Your task to perform on an android device: Go to Android settings Image 0: 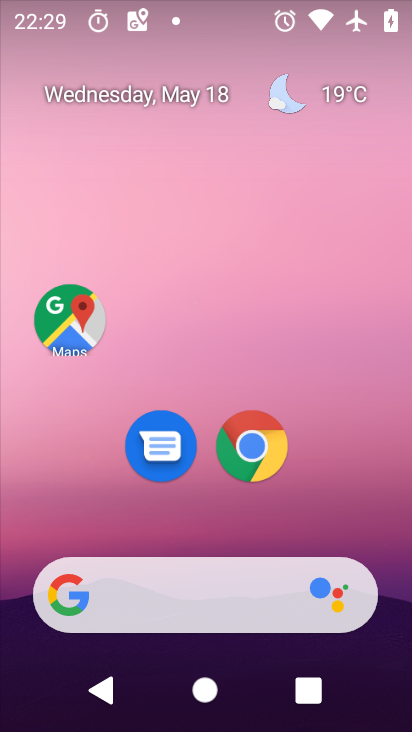
Step 0: press home button
Your task to perform on an android device: Go to Android settings Image 1: 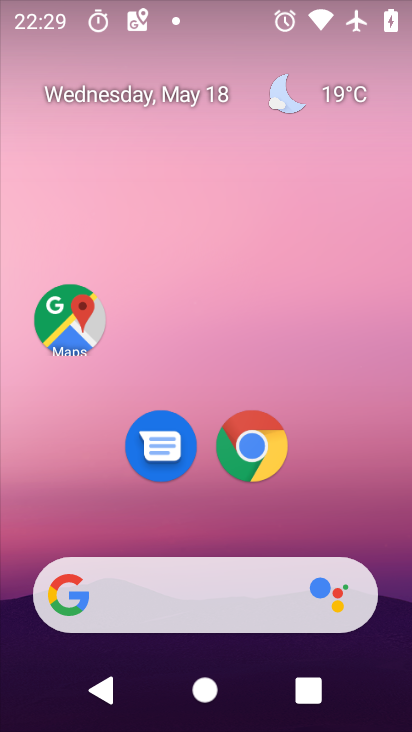
Step 1: drag from (190, 597) to (235, 93)
Your task to perform on an android device: Go to Android settings Image 2: 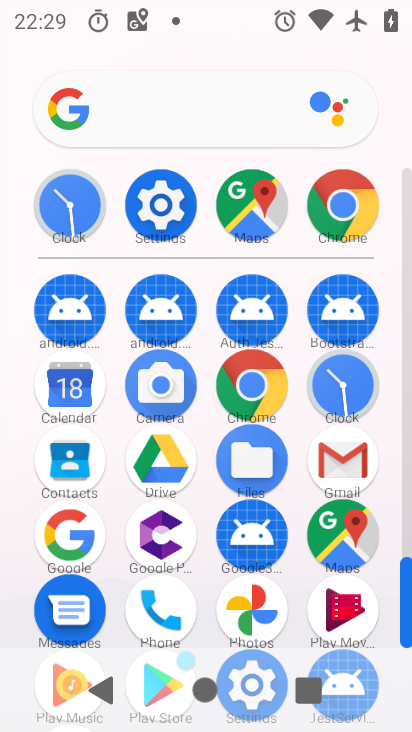
Step 2: click (162, 214)
Your task to perform on an android device: Go to Android settings Image 3: 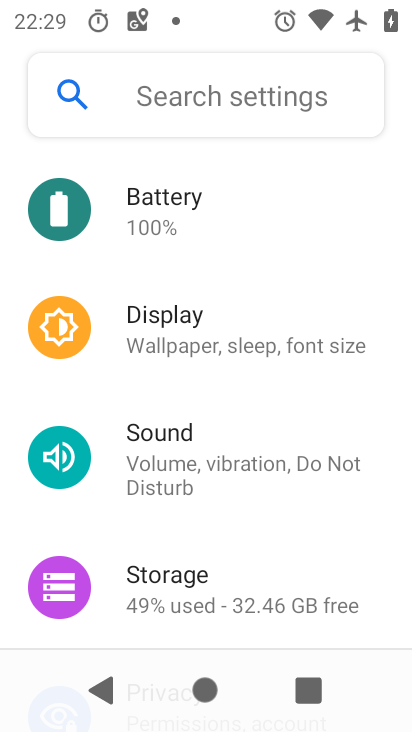
Step 3: task complete